Your task to perform on an android device: Do I have any events tomorrow? Image 0: 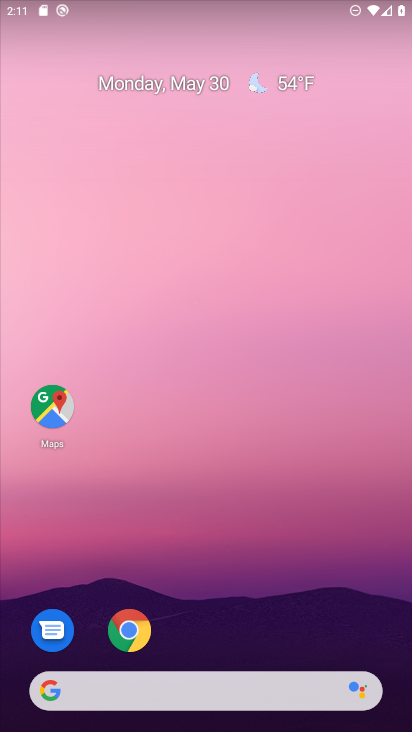
Step 0: drag from (226, 679) to (225, 152)
Your task to perform on an android device: Do I have any events tomorrow? Image 1: 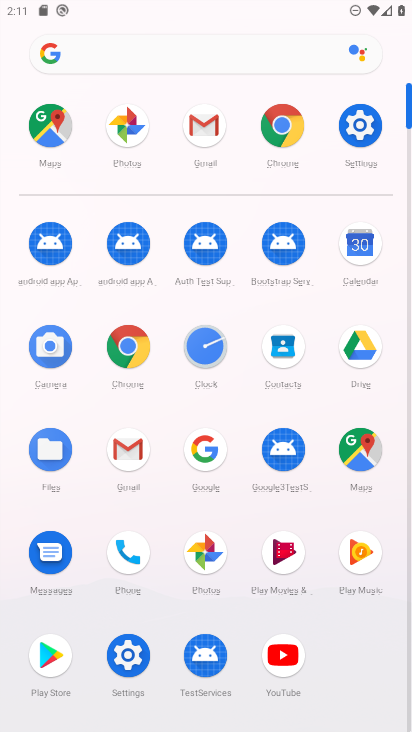
Step 1: click (345, 260)
Your task to perform on an android device: Do I have any events tomorrow? Image 2: 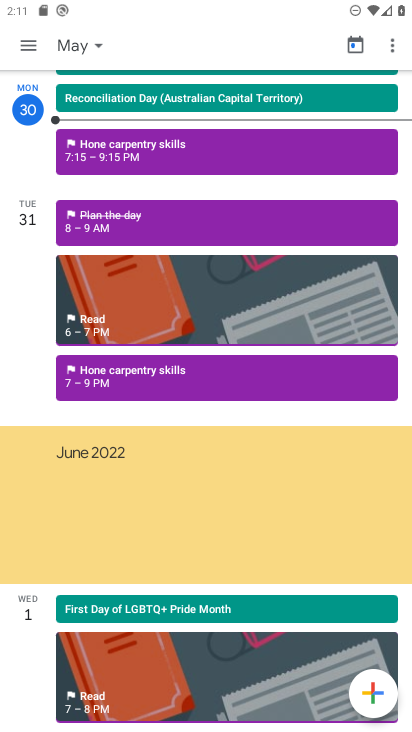
Step 2: press home button
Your task to perform on an android device: Do I have any events tomorrow? Image 3: 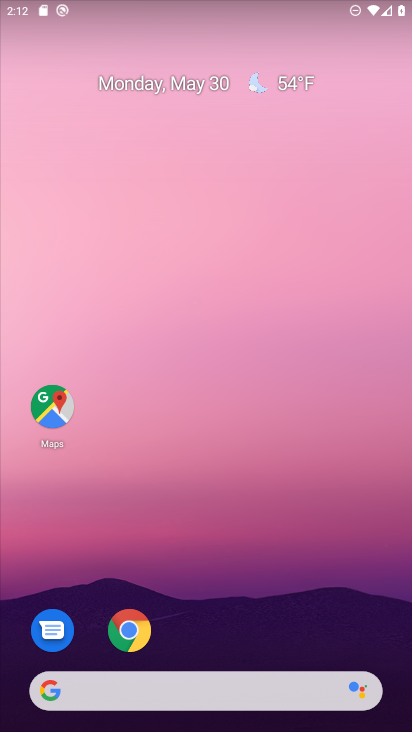
Step 3: drag from (237, 675) to (259, 84)
Your task to perform on an android device: Do I have any events tomorrow? Image 4: 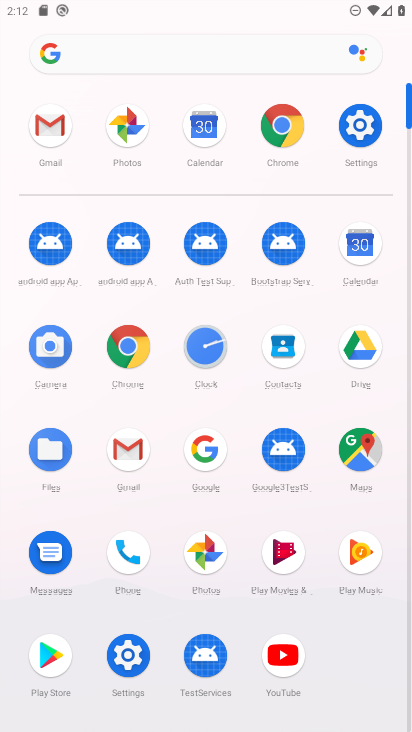
Step 4: click (361, 245)
Your task to perform on an android device: Do I have any events tomorrow? Image 5: 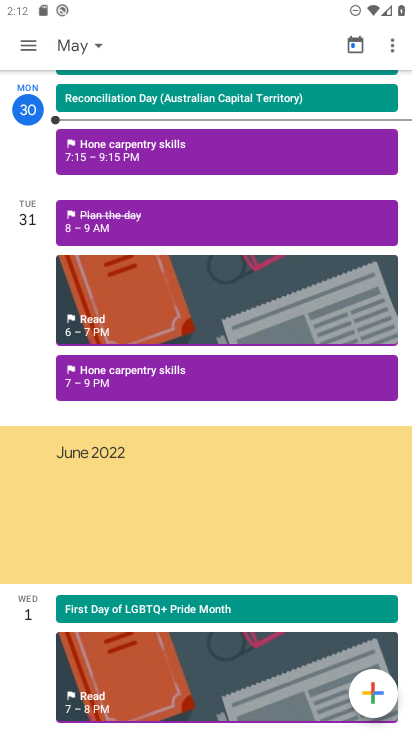
Step 5: task complete